Your task to perform on an android device: Open calendar and show me the second week of next month Image 0: 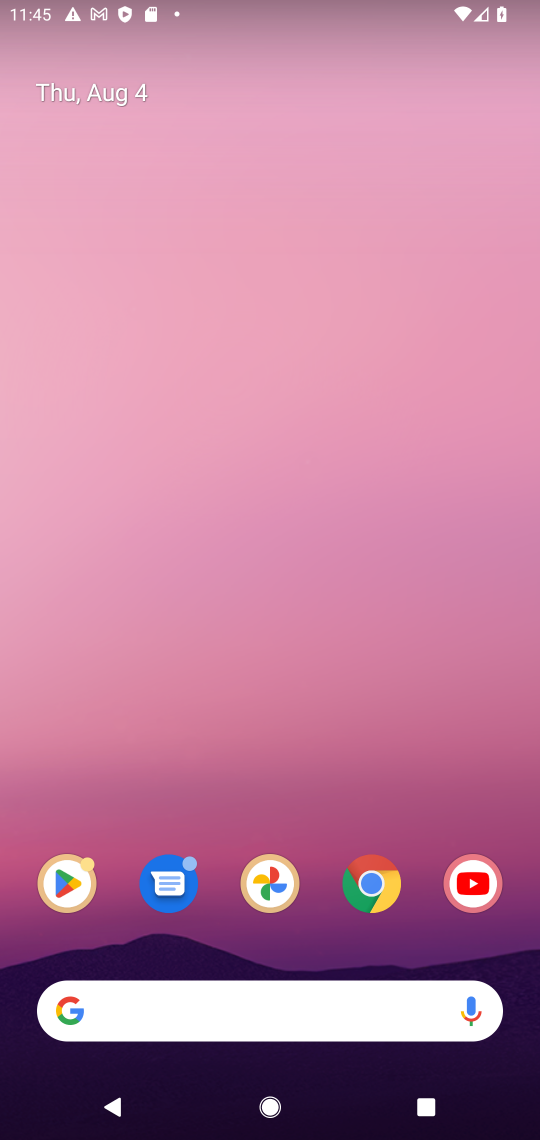
Step 0: drag from (225, 915) to (268, 261)
Your task to perform on an android device: Open calendar and show me the second week of next month Image 1: 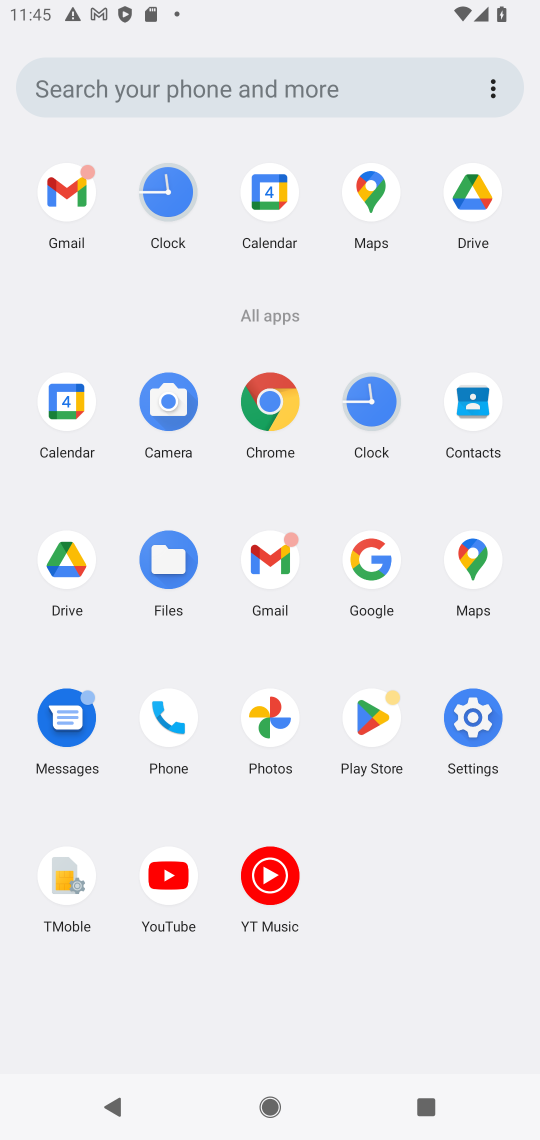
Step 1: drag from (354, 966) to (356, 291)
Your task to perform on an android device: Open calendar and show me the second week of next month Image 2: 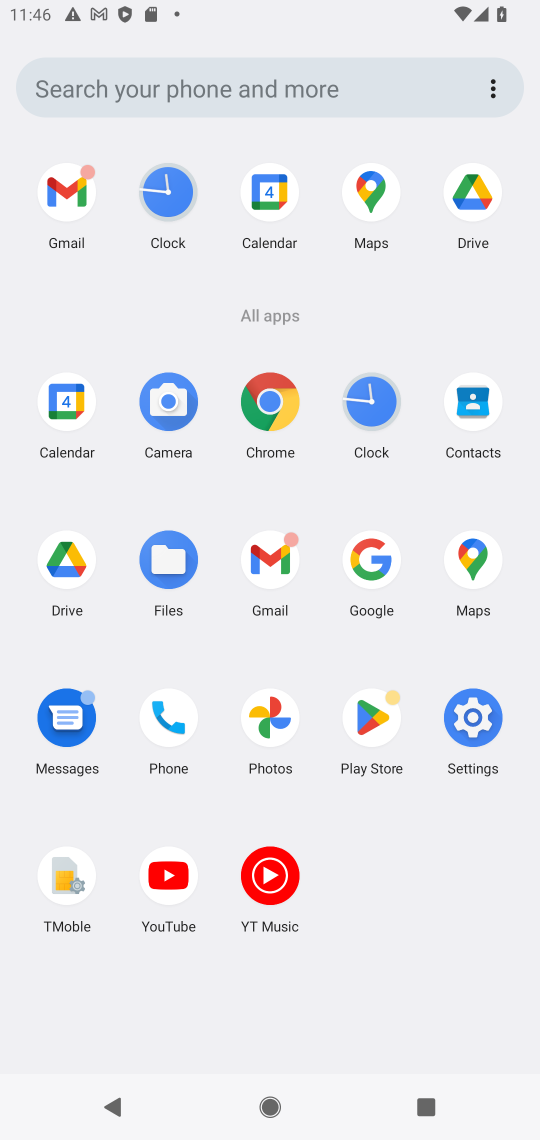
Step 2: drag from (201, 876) to (190, 283)
Your task to perform on an android device: Open calendar and show me the second week of next month Image 3: 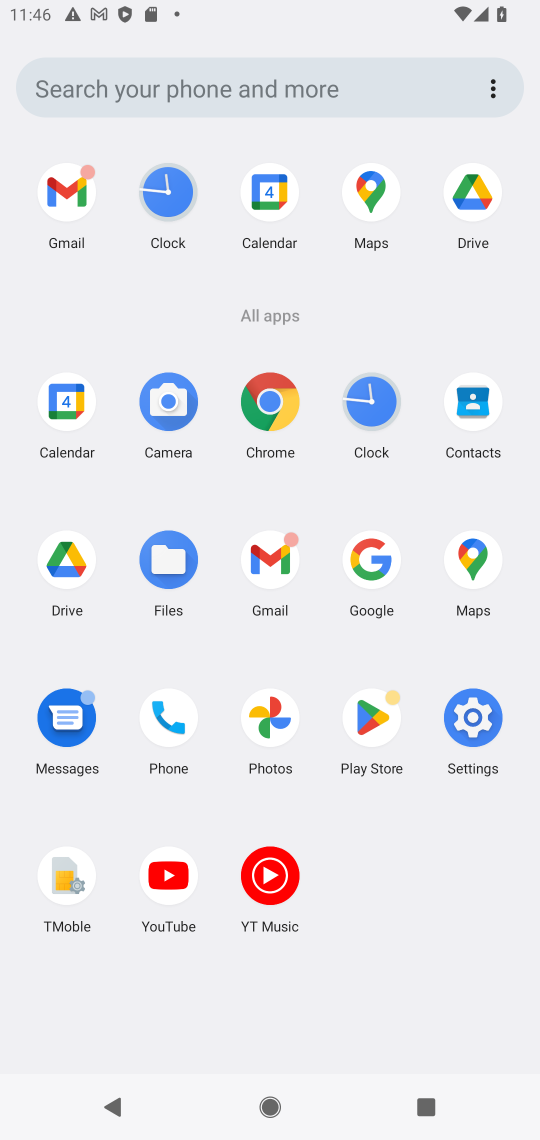
Step 3: click (66, 397)
Your task to perform on an android device: Open calendar and show me the second week of next month Image 4: 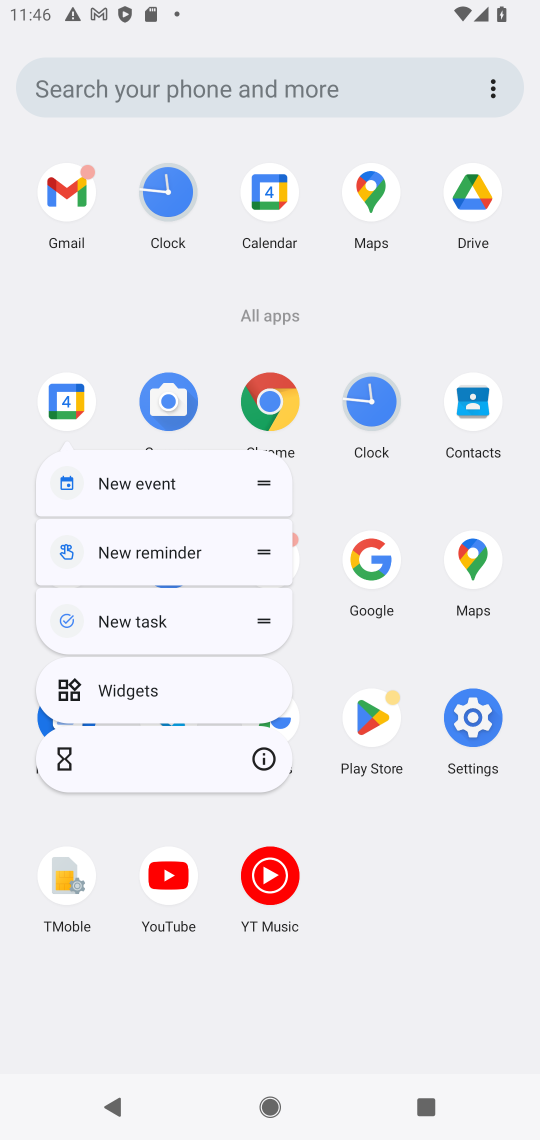
Step 4: click (256, 758)
Your task to perform on an android device: Open calendar and show me the second week of next month Image 5: 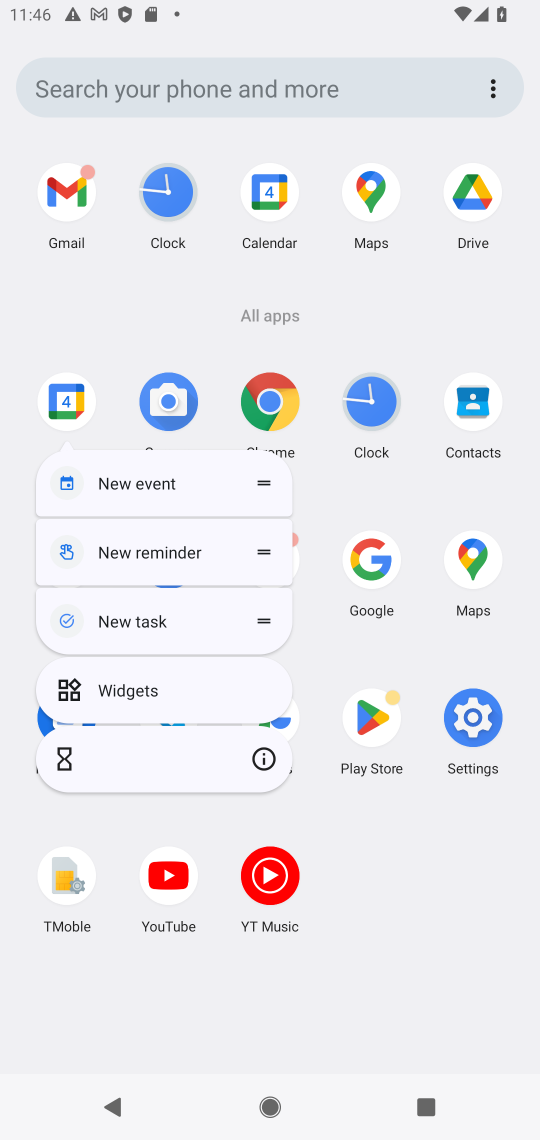
Step 5: click (258, 763)
Your task to perform on an android device: Open calendar and show me the second week of next month Image 6: 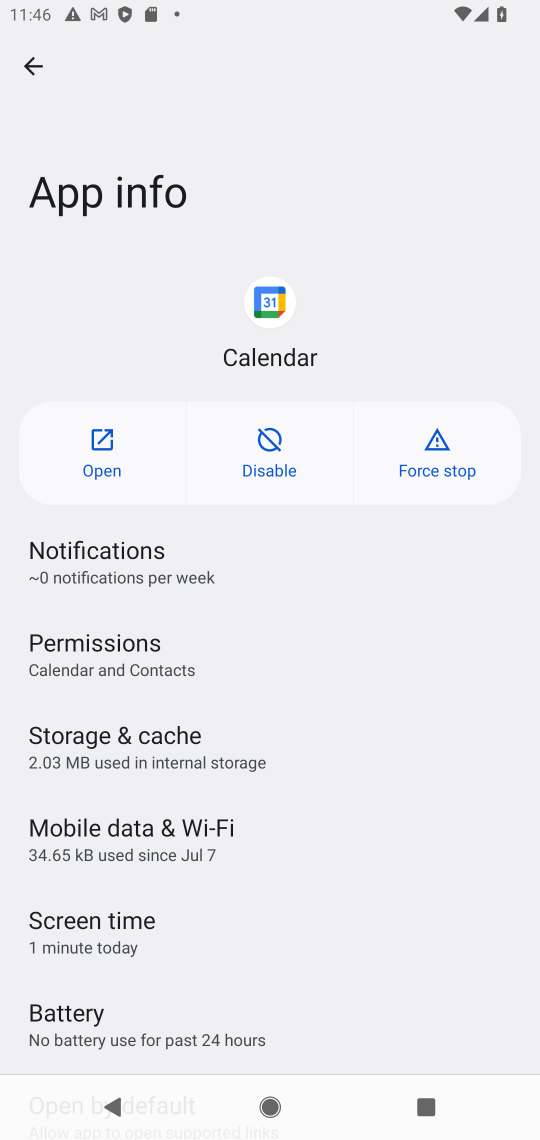
Step 6: click (89, 456)
Your task to perform on an android device: Open calendar and show me the second week of next month Image 7: 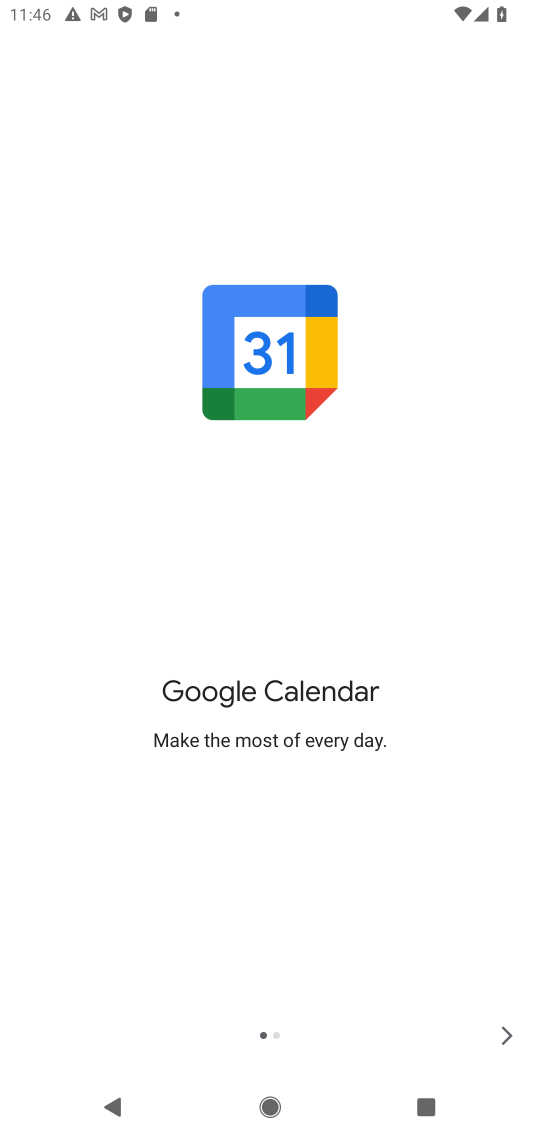
Step 7: click (507, 1037)
Your task to perform on an android device: Open calendar and show me the second week of next month Image 8: 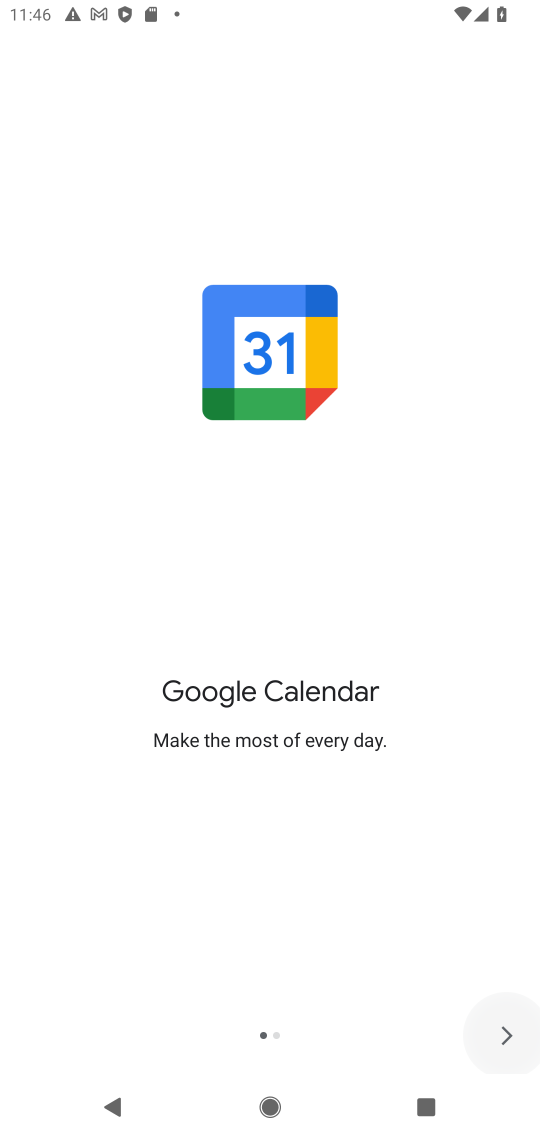
Step 8: click (507, 1037)
Your task to perform on an android device: Open calendar and show me the second week of next month Image 9: 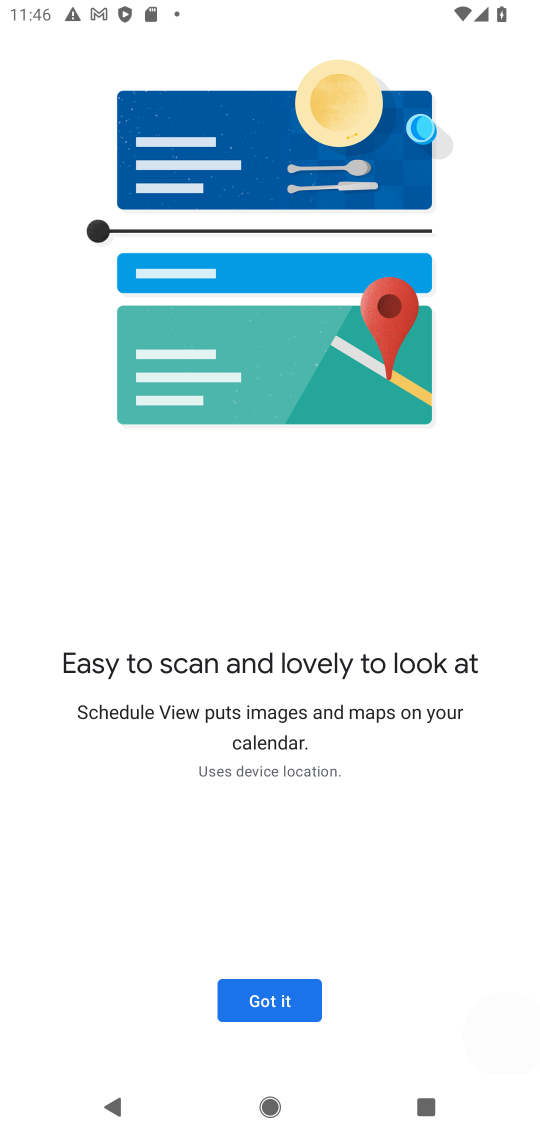
Step 9: click (501, 1032)
Your task to perform on an android device: Open calendar and show me the second week of next month Image 10: 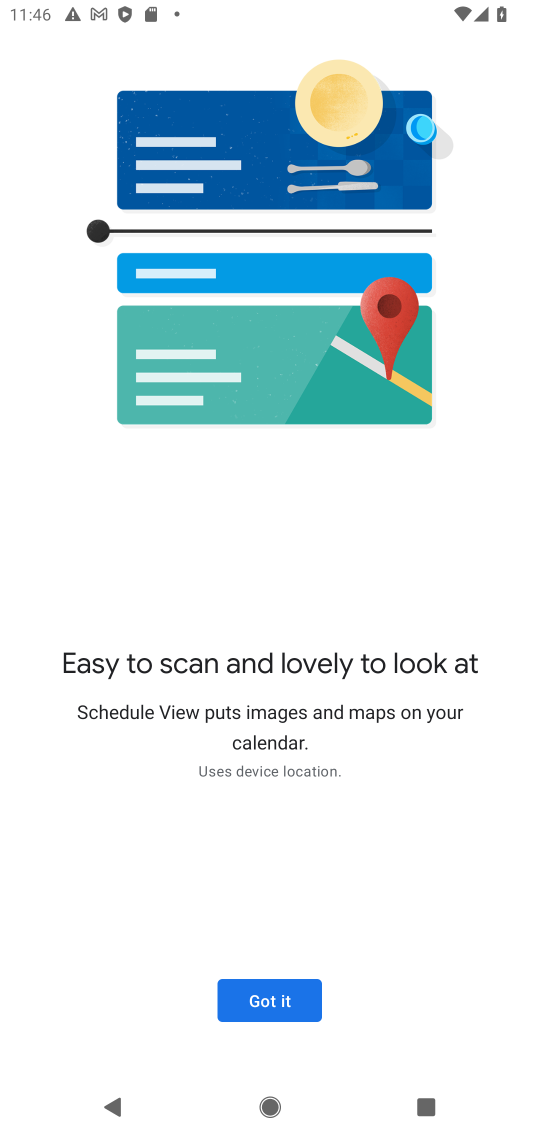
Step 10: click (247, 993)
Your task to perform on an android device: Open calendar and show me the second week of next month Image 11: 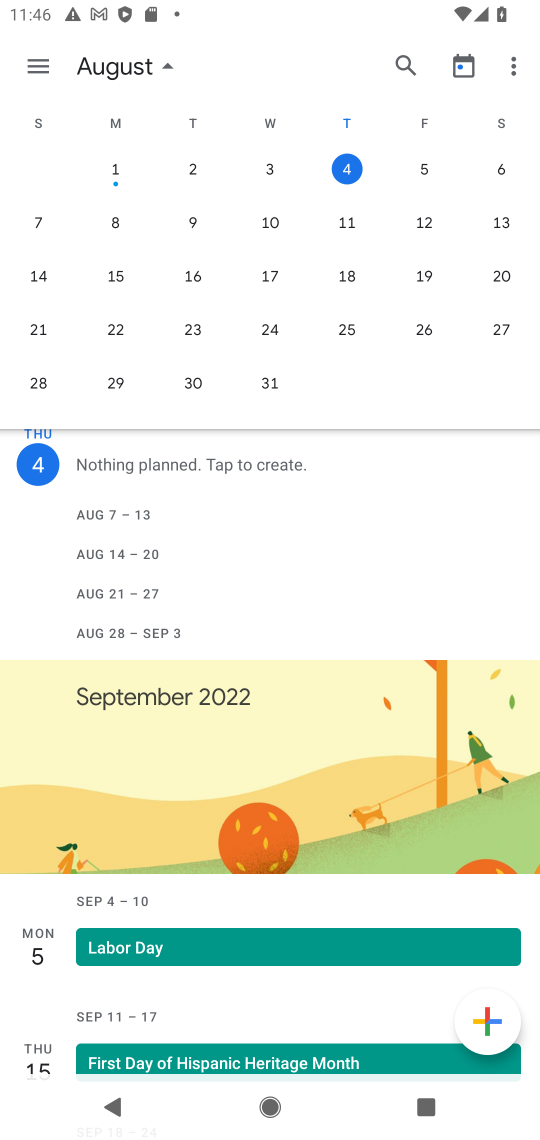
Step 11: drag from (499, 306) to (12, 284)
Your task to perform on an android device: Open calendar and show me the second week of next month Image 12: 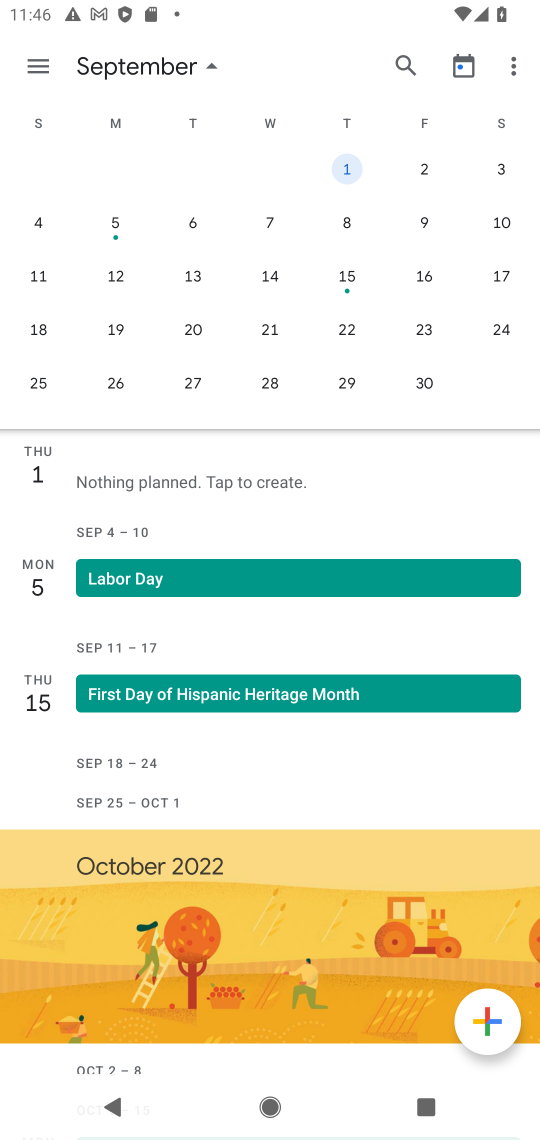
Step 12: click (421, 174)
Your task to perform on an android device: Open calendar and show me the second week of next month Image 13: 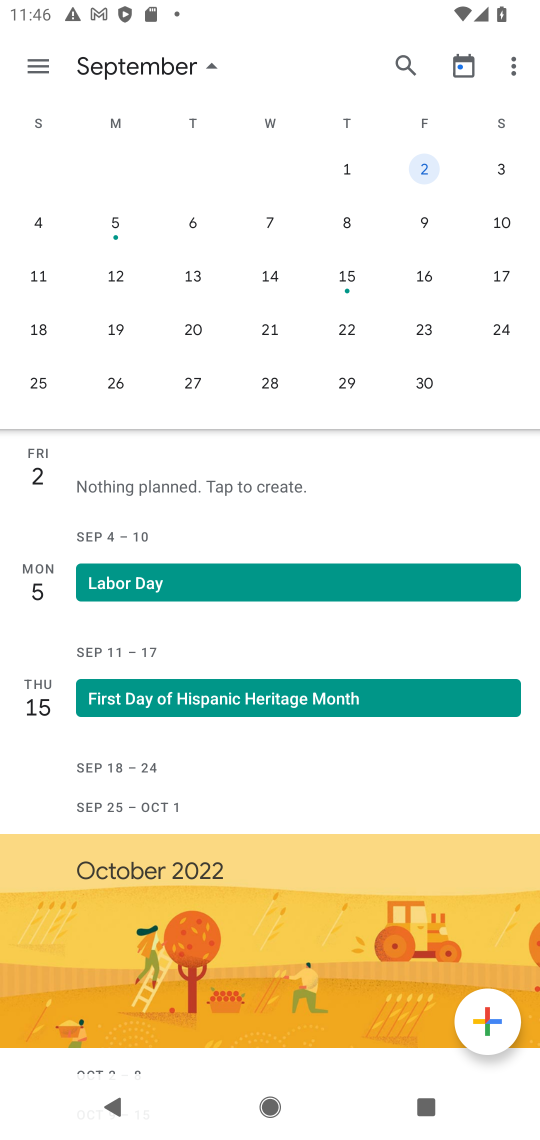
Step 13: task complete